Your task to perform on an android device: Open Youtube and go to the subscriptions tab Image 0: 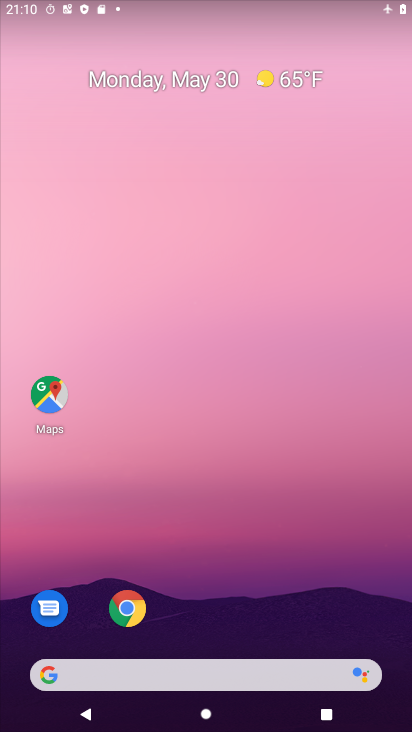
Step 0: drag from (231, 613) to (238, 223)
Your task to perform on an android device: Open Youtube and go to the subscriptions tab Image 1: 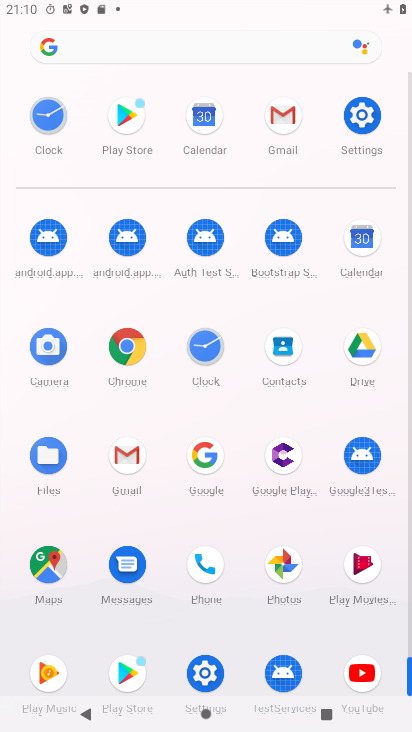
Step 1: click (362, 658)
Your task to perform on an android device: Open Youtube and go to the subscriptions tab Image 2: 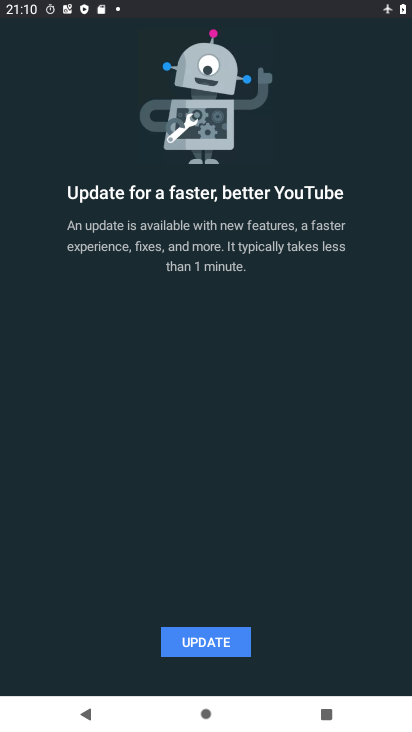
Step 2: click (218, 645)
Your task to perform on an android device: Open Youtube and go to the subscriptions tab Image 3: 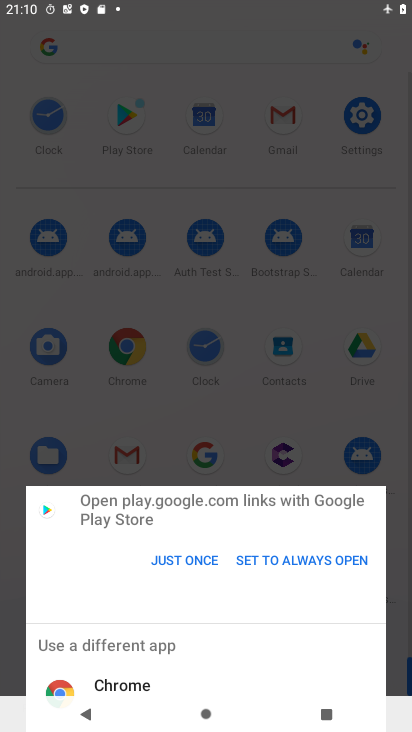
Step 3: click (175, 562)
Your task to perform on an android device: Open Youtube and go to the subscriptions tab Image 4: 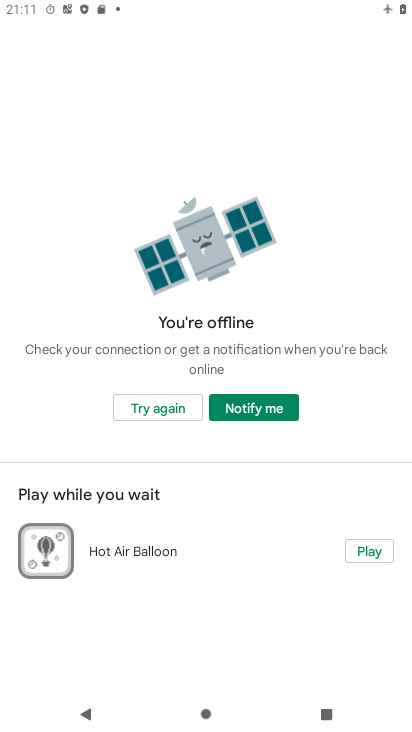
Step 4: task complete